Your task to perform on an android device: move a message to another label in the gmail app Image 0: 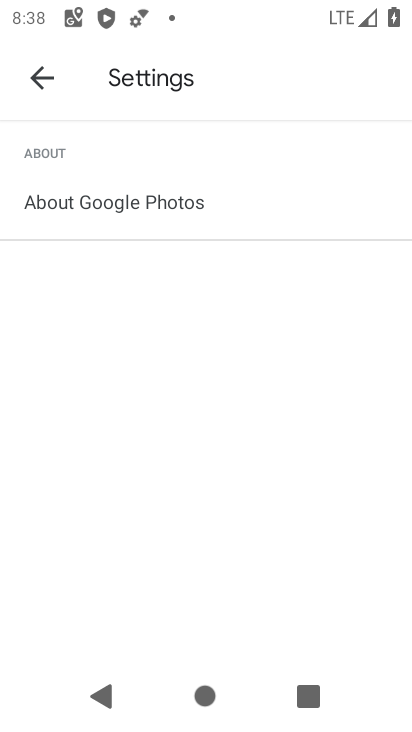
Step 0: press back button
Your task to perform on an android device: move a message to another label in the gmail app Image 1: 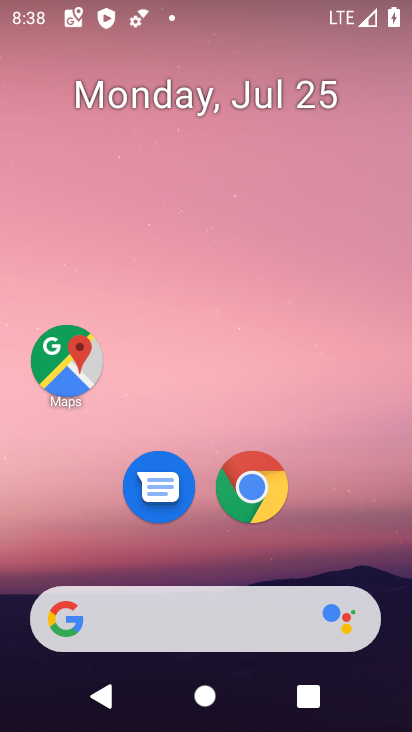
Step 1: drag from (185, 560) to (268, 9)
Your task to perform on an android device: move a message to another label in the gmail app Image 2: 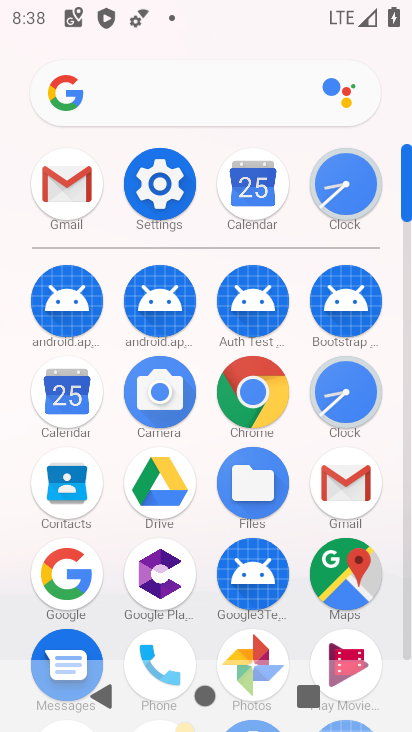
Step 2: click (81, 172)
Your task to perform on an android device: move a message to another label in the gmail app Image 3: 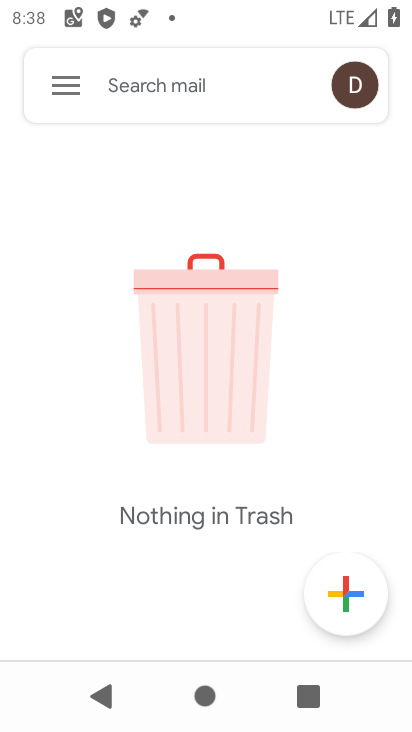
Step 3: click (37, 78)
Your task to perform on an android device: move a message to another label in the gmail app Image 4: 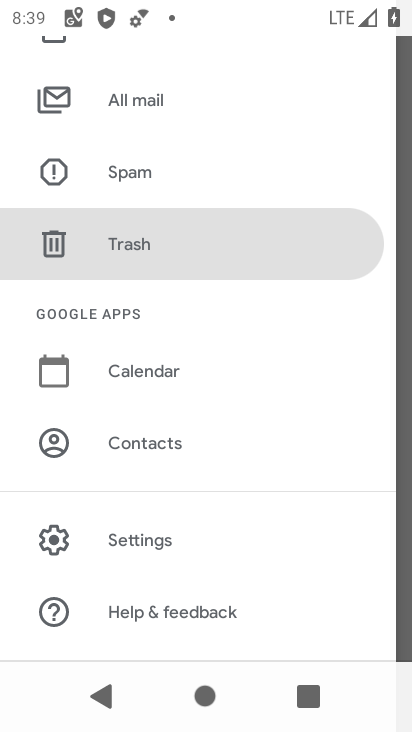
Step 4: click (201, 87)
Your task to perform on an android device: move a message to another label in the gmail app Image 5: 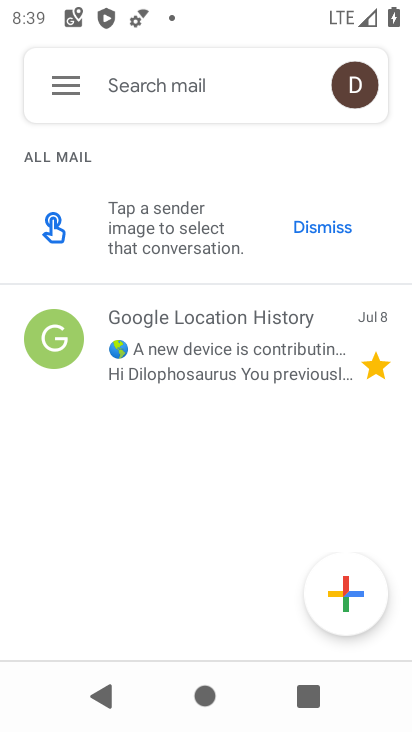
Step 5: click (211, 347)
Your task to perform on an android device: move a message to another label in the gmail app Image 6: 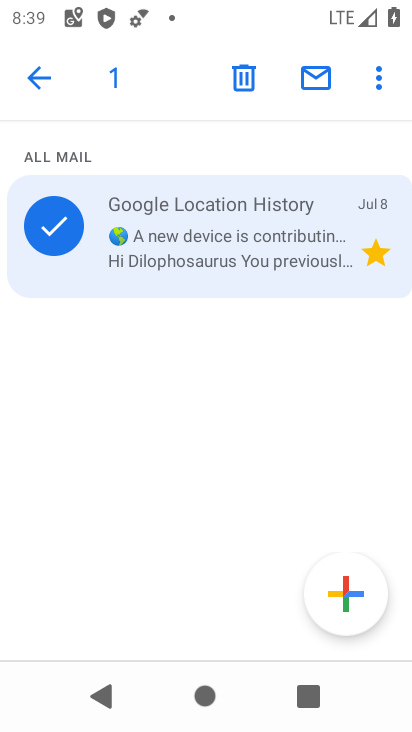
Step 6: click (376, 77)
Your task to perform on an android device: move a message to another label in the gmail app Image 7: 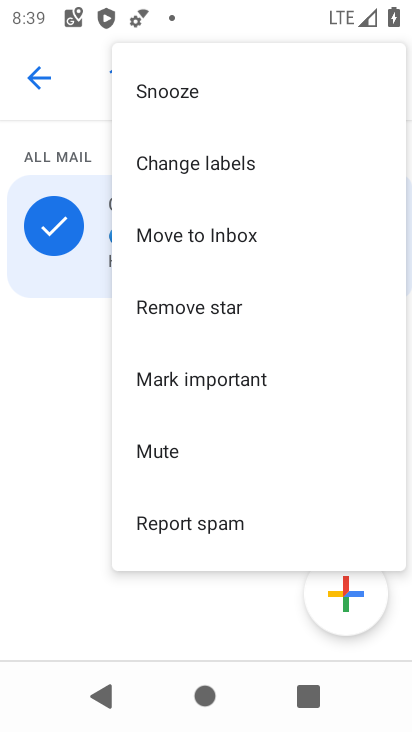
Step 7: click (213, 239)
Your task to perform on an android device: move a message to another label in the gmail app Image 8: 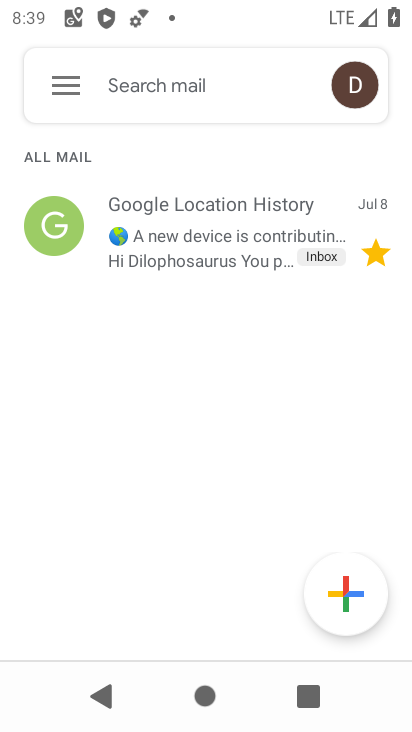
Step 8: task complete